Your task to perform on an android device: Do I have any events tomorrow? Image 0: 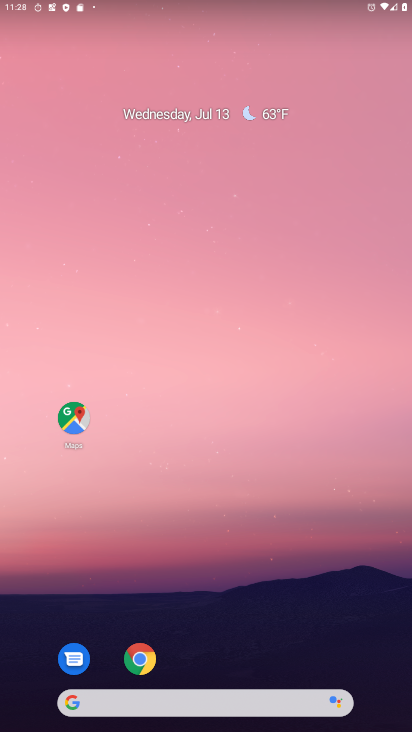
Step 0: drag from (267, 600) to (239, 174)
Your task to perform on an android device: Do I have any events tomorrow? Image 1: 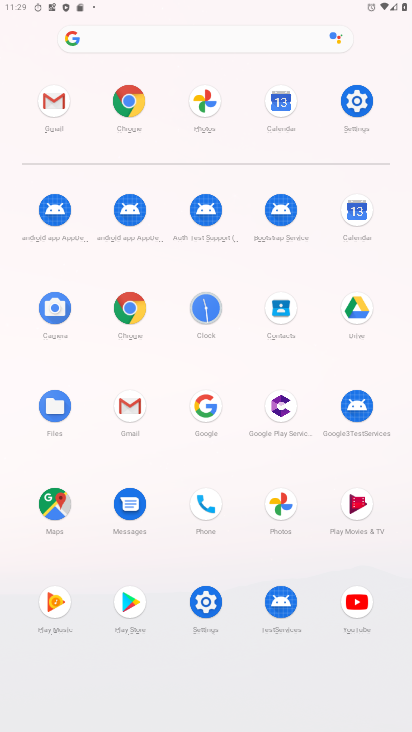
Step 1: click (360, 209)
Your task to perform on an android device: Do I have any events tomorrow? Image 2: 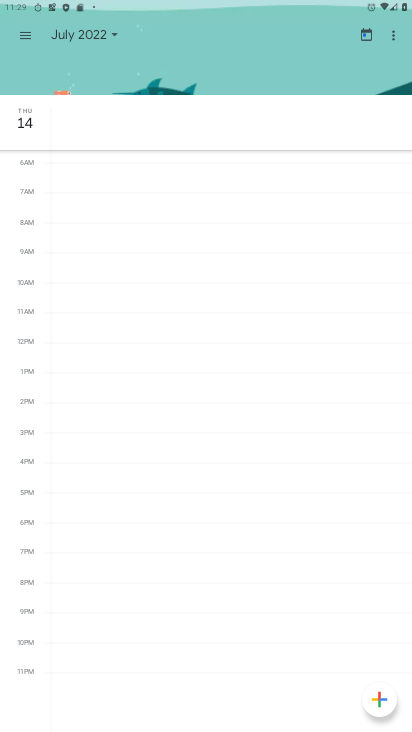
Step 2: task complete